Your task to perform on an android device: turn smart compose on in the gmail app Image 0: 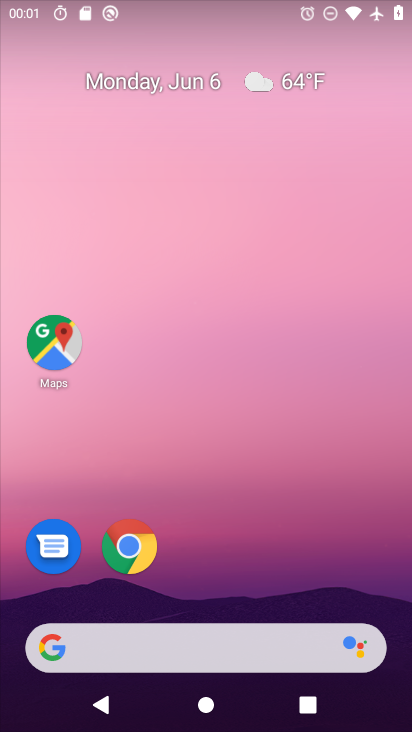
Step 0: drag from (203, 589) to (236, 298)
Your task to perform on an android device: turn smart compose on in the gmail app Image 1: 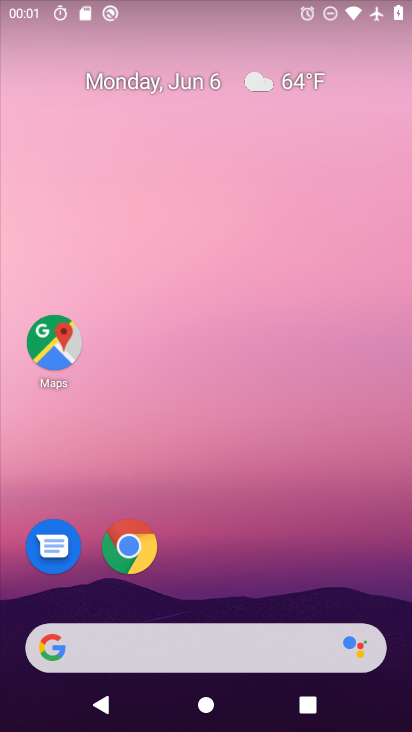
Step 1: drag from (174, 572) to (194, 108)
Your task to perform on an android device: turn smart compose on in the gmail app Image 2: 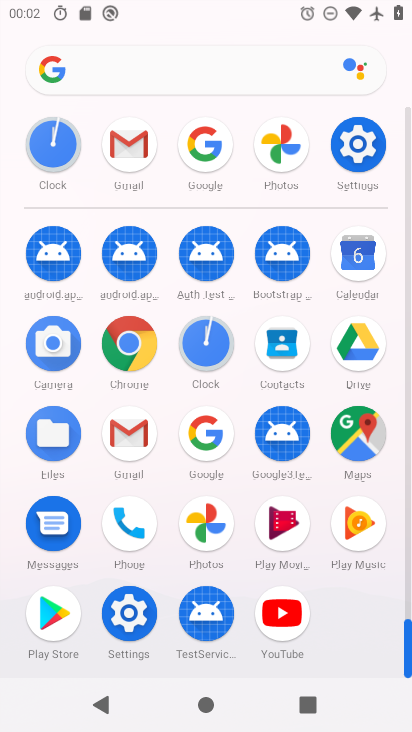
Step 2: click (128, 436)
Your task to perform on an android device: turn smart compose on in the gmail app Image 3: 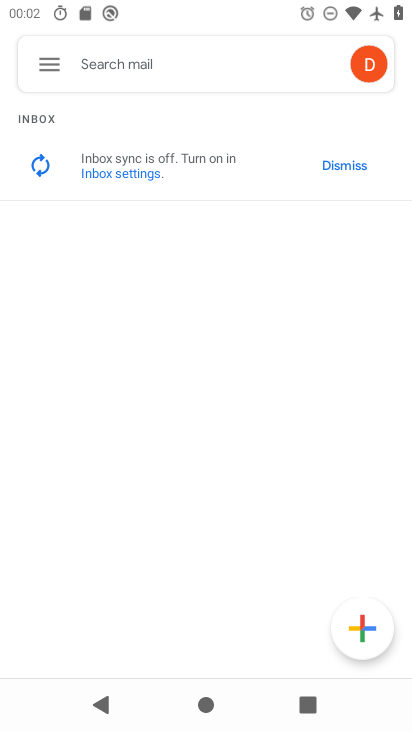
Step 3: click (61, 58)
Your task to perform on an android device: turn smart compose on in the gmail app Image 4: 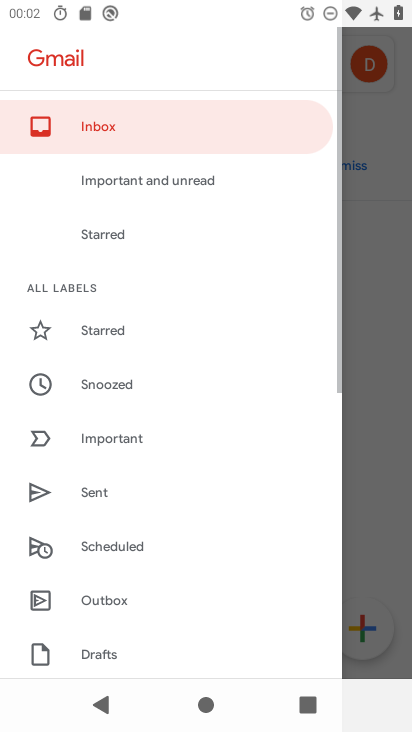
Step 4: drag from (169, 556) to (195, 114)
Your task to perform on an android device: turn smart compose on in the gmail app Image 5: 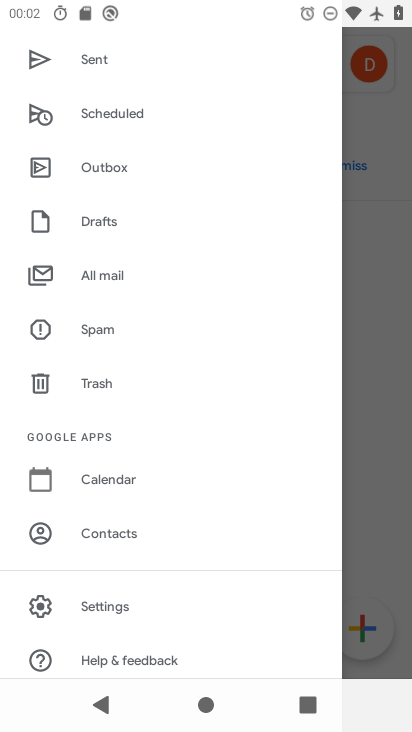
Step 5: click (124, 594)
Your task to perform on an android device: turn smart compose on in the gmail app Image 6: 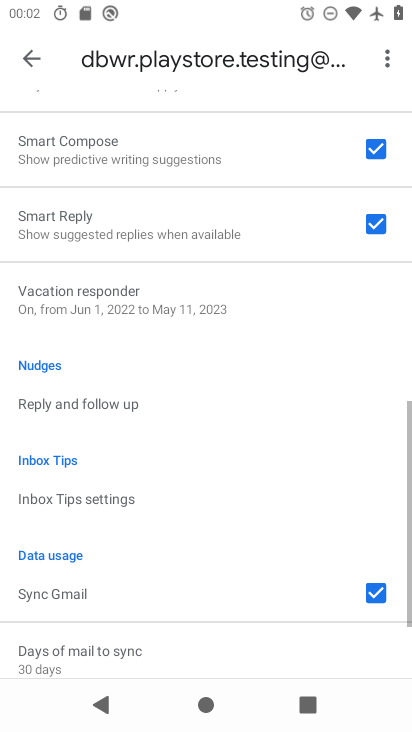
Step 6: task complete